Your task to perform on an android device: Open CNN.com Image 0: 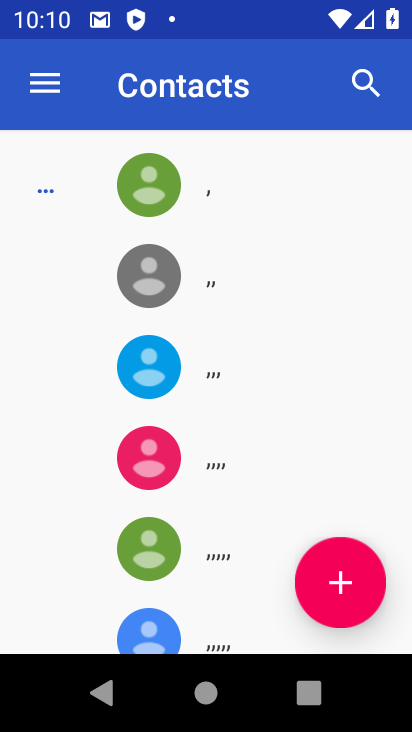
Step 0: press home button
Your task to perform on an android device: Open CNN.com Image 1: 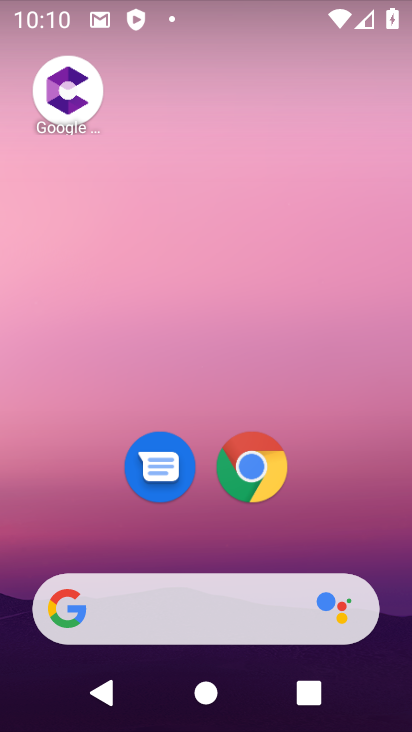
Step 1: click (247, 464)
Your task to perform on an android device: Open CNN.com Image 2: 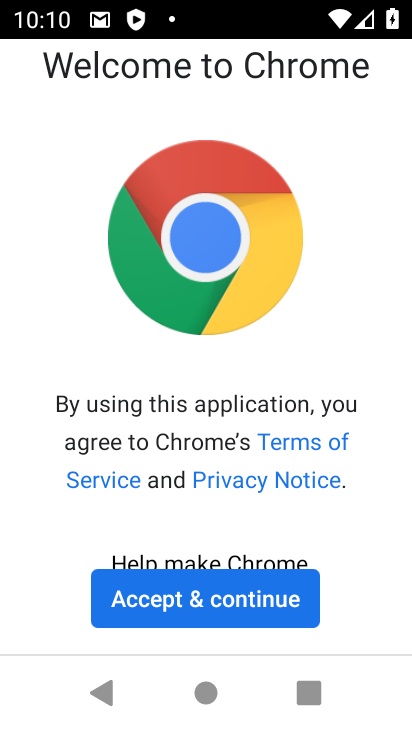
Step 2: click (257, 587)
Your task to perform on an android device: Open CNN.com Image 3: 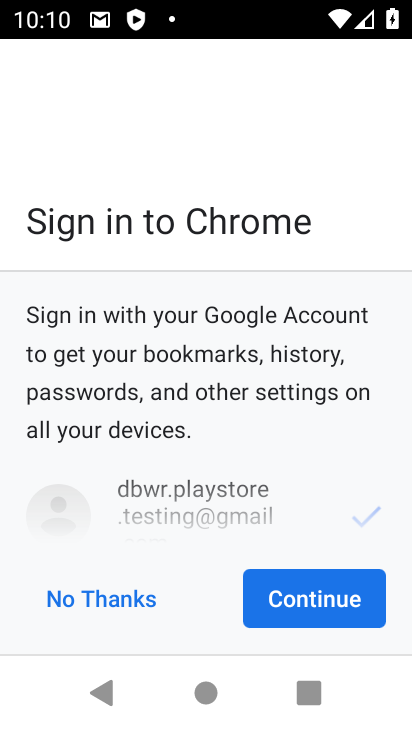
Step 3: click (292, 581)
Your task to perform on an android device: Open CNN.com Image 4: 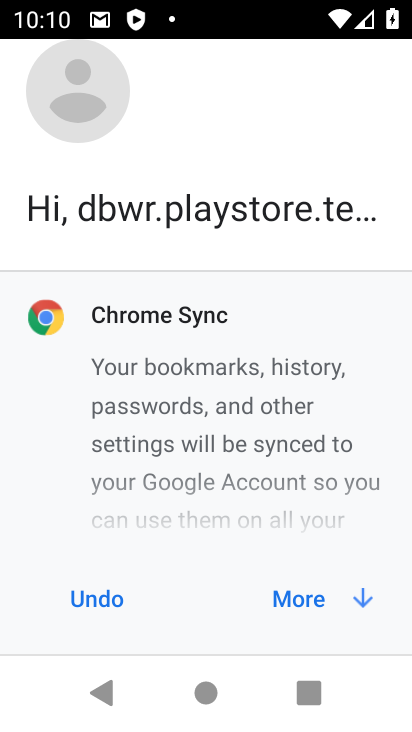
Step 4: click (292, 612)
Your task to perform on an android device: Open CNN.com Image 5: 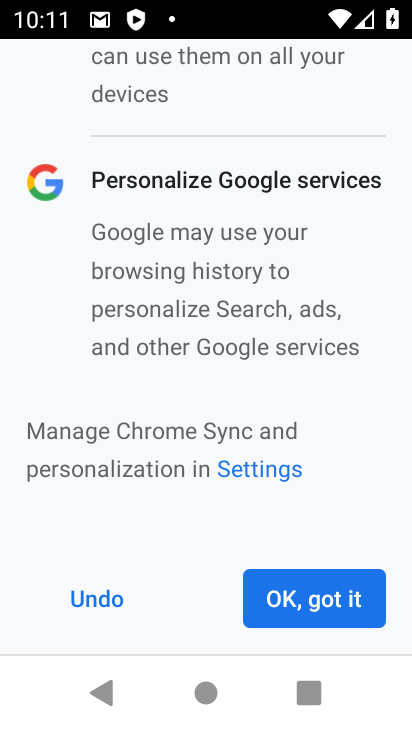
Step 5: click (293, 602)
Your task to perform on an android device: Open CNN.com Image 6: 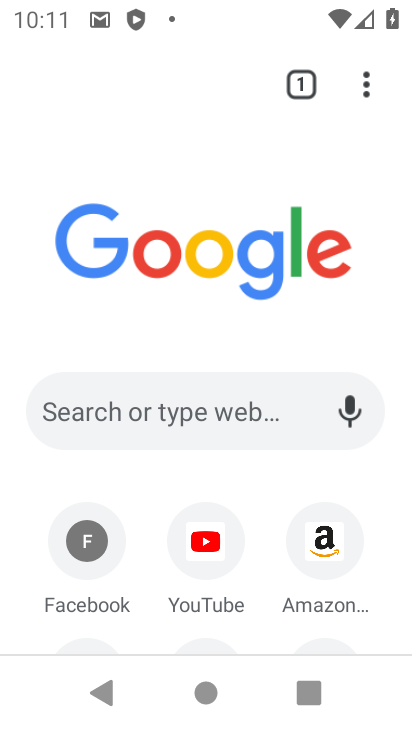
Step 6: click (199, 410)
Your task to perform on an android device: Open CNN.com Image 7: 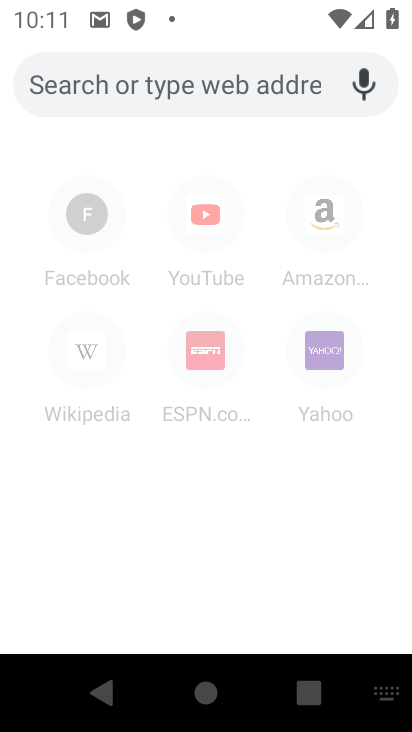
Step 7: type "CNN.com"
Your task to perform on an android device: Open CNN.com Image 8: 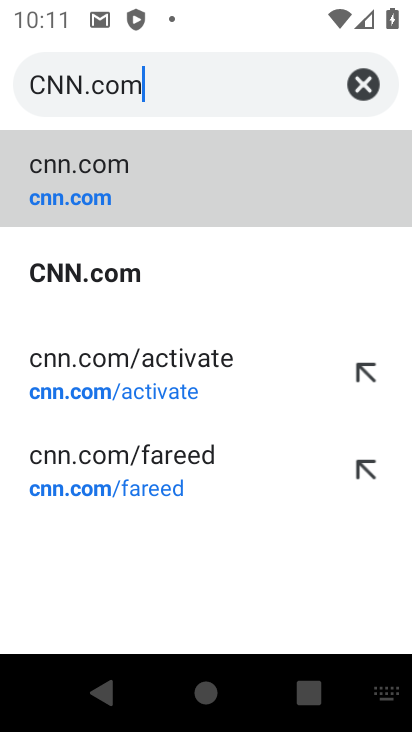
Step 8: click (77, 266)
Your task to perform on an android device: Open CNN.com Image 9: 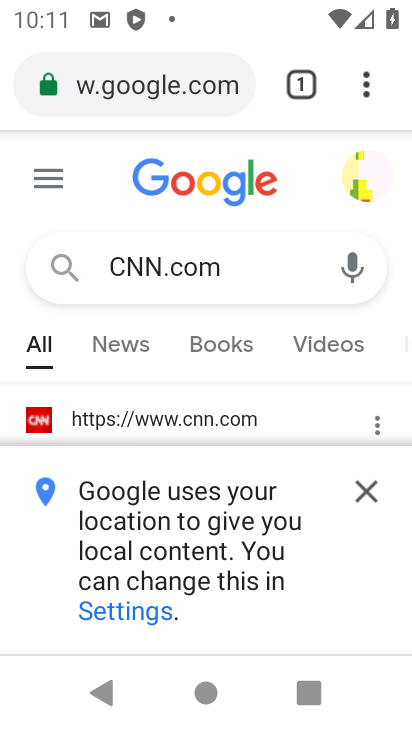
Step 9: task complete